Your task to perform on an android device: Show me the alarms in the clock app Image 0: 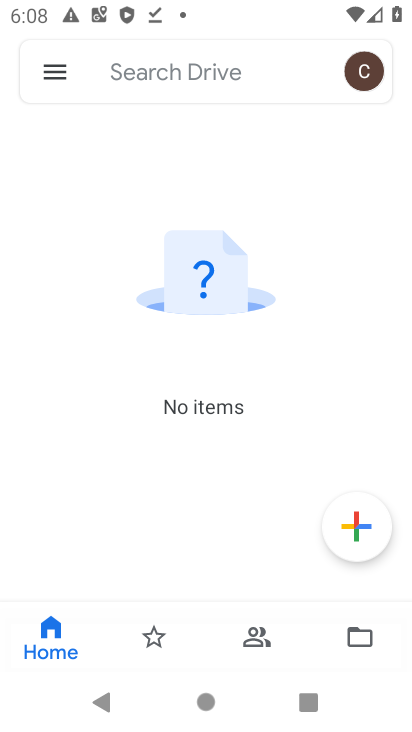
Step 0: drag from (222, 448) to (166, 200)
Your task to perform on an android device: Show me the alarms in the clock app Image 1: 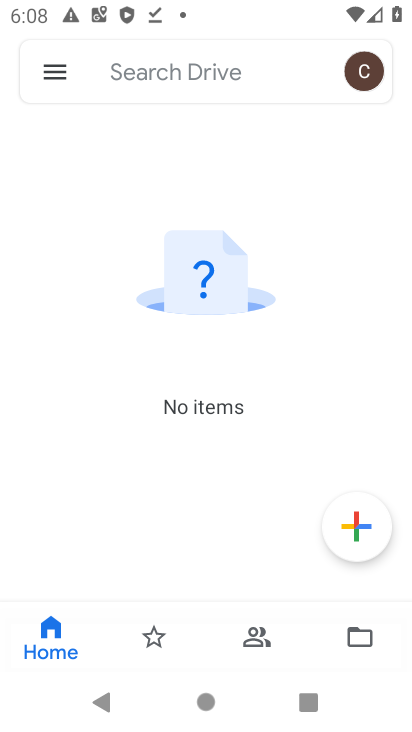
Step 1: press home button
Your task to perform on an android device: Show me the alarms in the clock app Image 2: 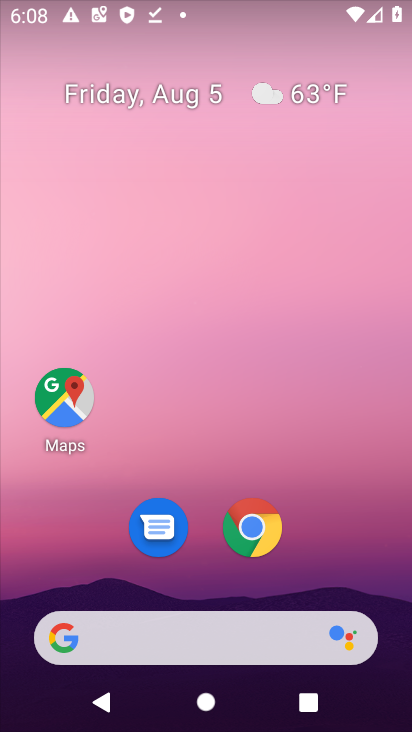
Step 2: drag from (197, 571) to (194, 341)
Your task to perform on an android device: Show me the alarms in the clock app Image 3: 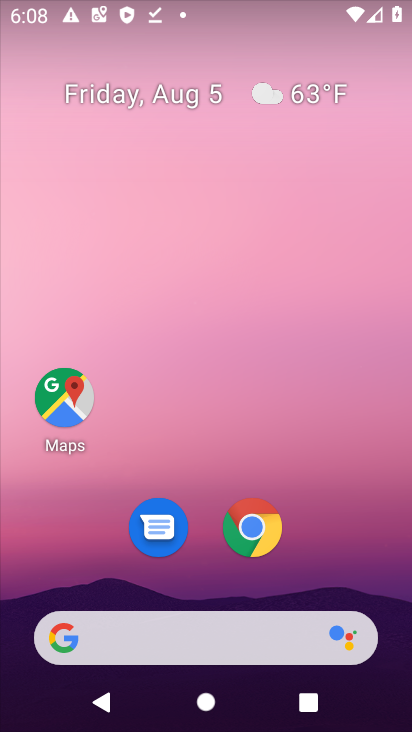
Step 3: drag from (258, 577) to (247, 322)
Your task to perform on an android device: Show me the alarms in the clock app Image 4: 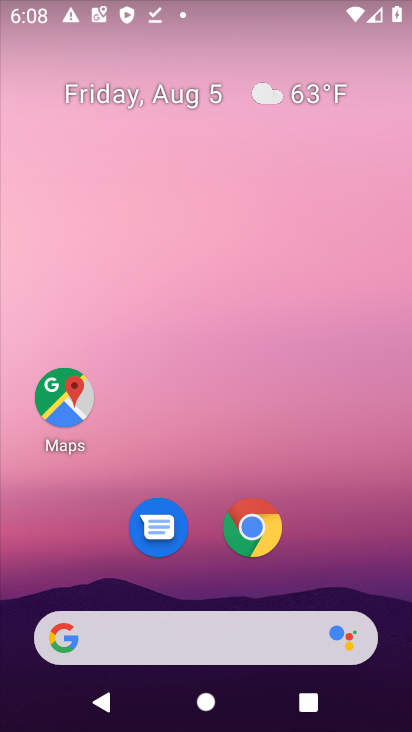
Step 4: drag from (216, 549) to (178, 325)
Your task to perform on an android device: Show me the alarms in the clock app Image 5: 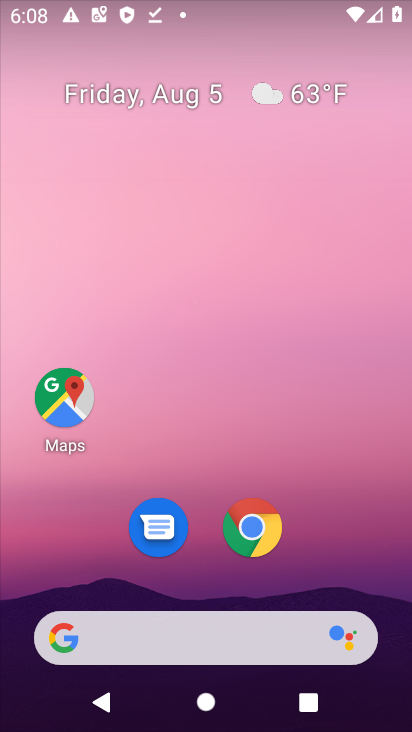
Step 5: drag from (183, 549) to (199, 114)
Your task to perform on an android device: Show me the alarms in the clock app Image 6: 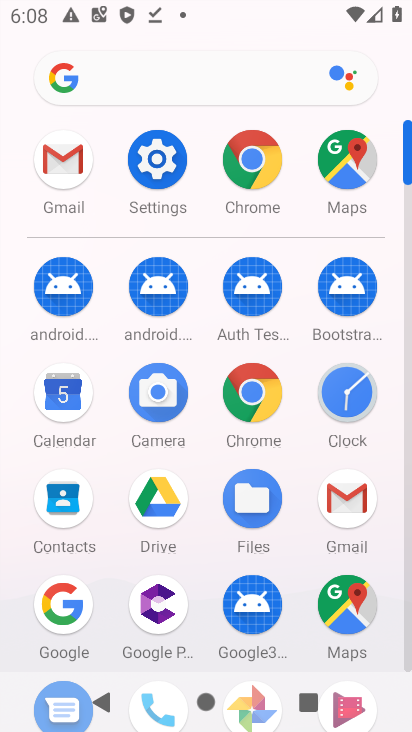
Step 6: click (152, 152)
Your task to perform on an android device: Show me the alarms in the clock app Image 7: 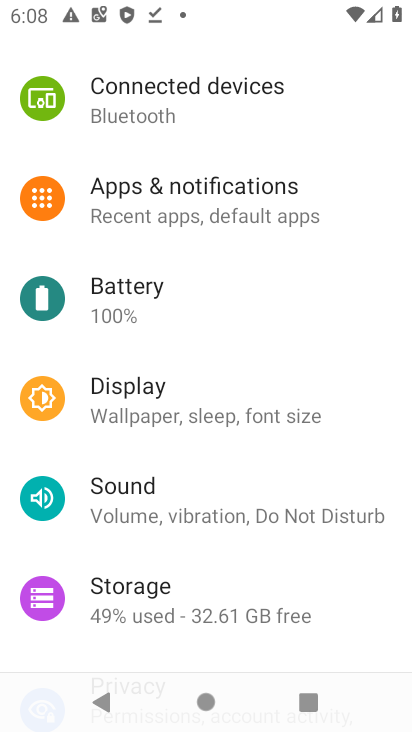
Step 7: drag from (233, 472) to (253, 280)
Your task to perform on an android device: Show me the alarms in the clock app Image 8: 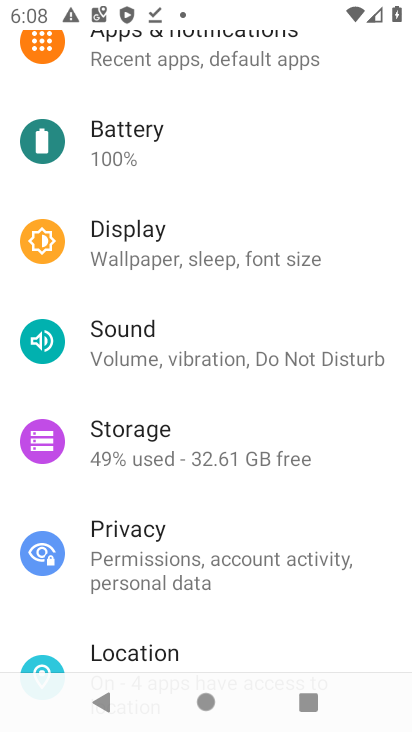
Step 8: drag from (254, 288) to (322, 709)
Your task to perform on an android device: Show me the alarms in the clock app Image 9: 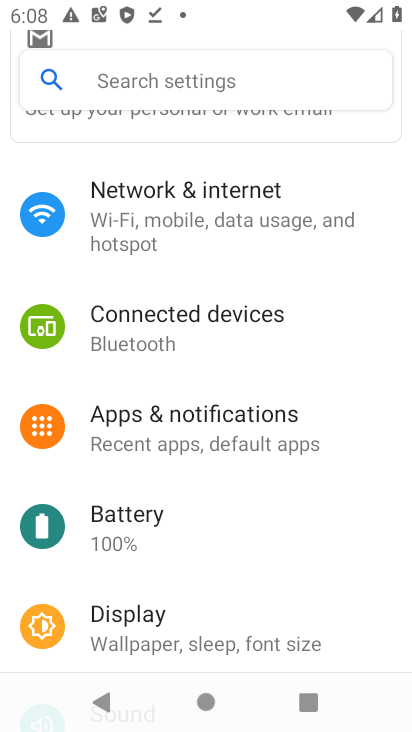
Step 9: press home button
Your task to perform on an android device: Show me the alarms in the clock app Image 10: 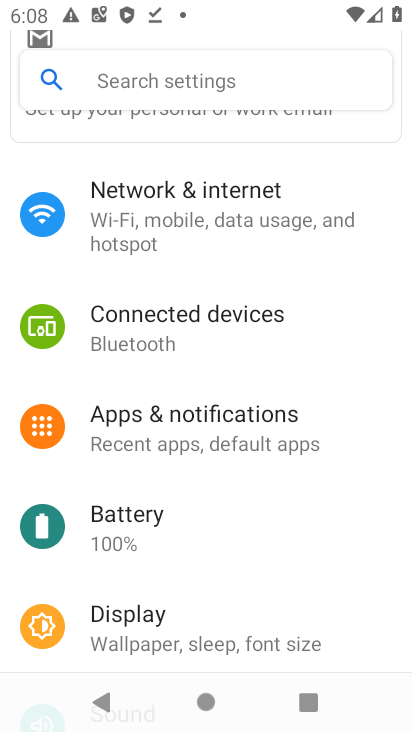
Step 10: drag from (322, 709) to (393, 417)
Your task to perform on an android device: Show me the alarms in the clock app Image 11: 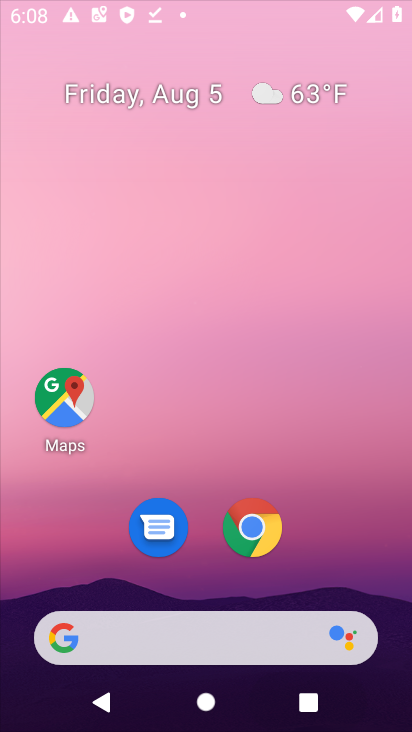
Step 11: drag from (184, 576) to (225, 77)
Your task to perform on an android device: Show me the alarms in the clock app Image 12: 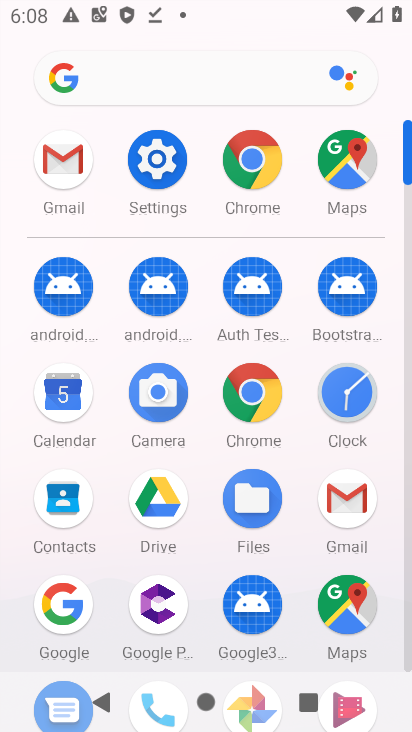
Step 12: click (340, 400)
Your task to perform on an android device: Show me the alarms in the clock app Image 13: 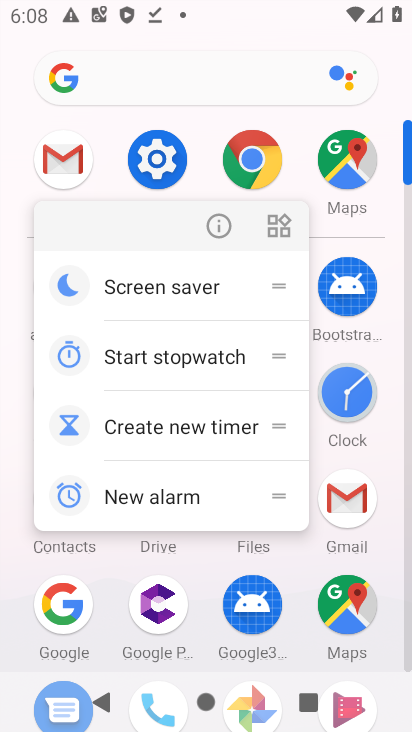
Step 13: click (221, 214)
Your task to perform on an android device: Show me the alarms in the clock app Image 14: 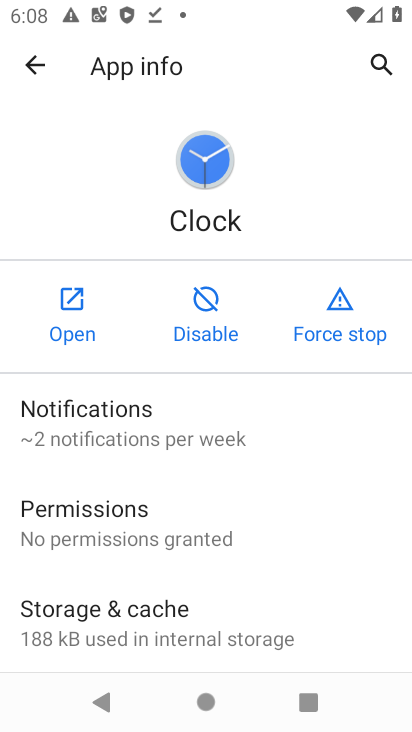
Step 14: click (73, 311)
Your task to perform on an android device: Show me the alarms in the clock app Image 15: 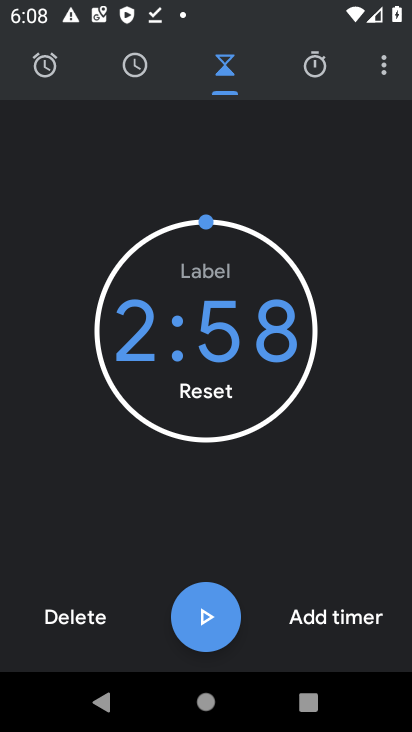
Step 15: drag from (192, 440) to (236, 224)
Your task to perform on an android device: Show me the alarms in the clock app Image 16: 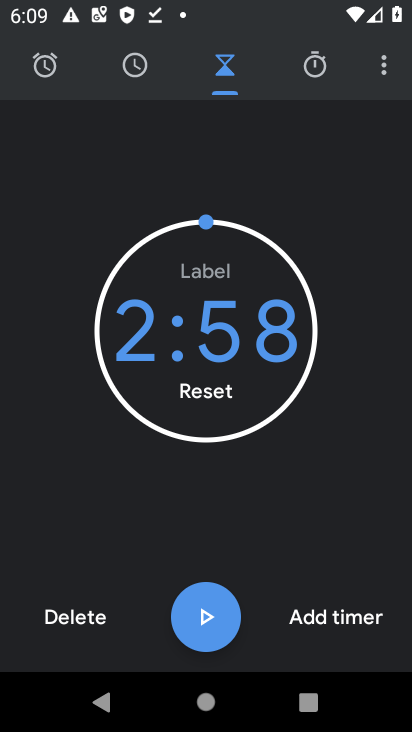
Step 16: click (52, 55)
Your task to perform on an android device: Show me the alarms in the clock app Image 17: 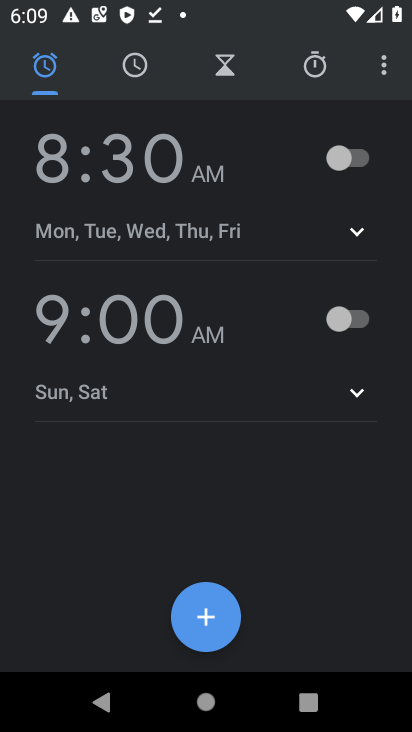
Step 17: task complete